Your task to perform on an android device: Set the phone to "Do not disturb". Image 0: 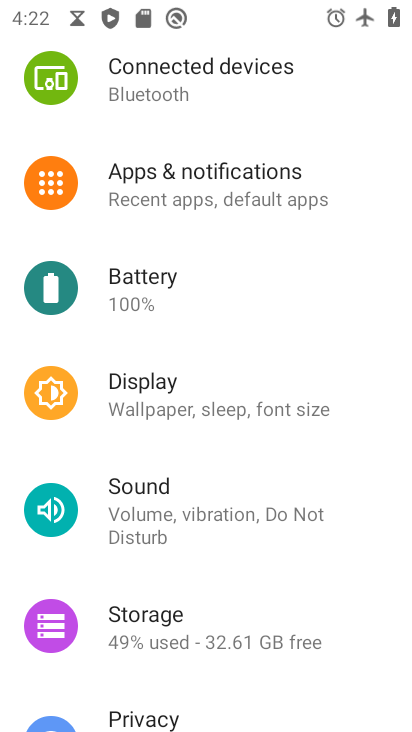
Step 0: press home button
Your task to perform on an android device: Set the phone to "Do not disturb". Image 1: 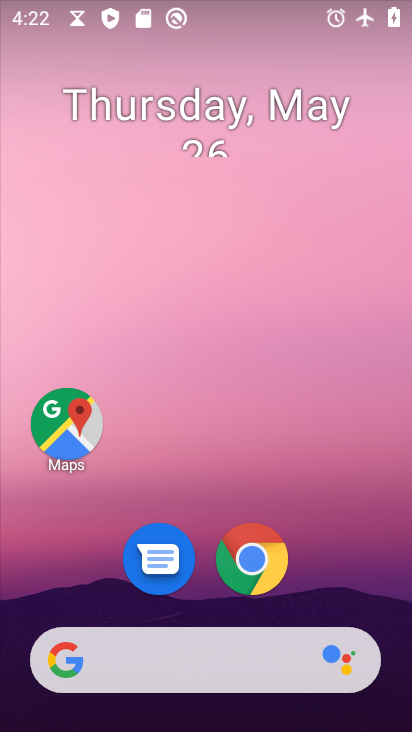
Step 1: drag from (339, 532) to (247, 42)
Your task to perform on an android device: Set the phone to "Do not disturb". Image 2: 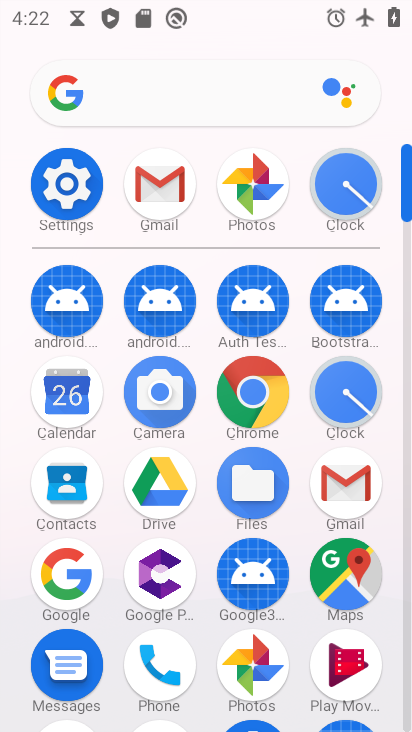
Step 2: click (61, 187)
Your task to perform on an android device: Set the phone to "Do not disturb". Image 3: 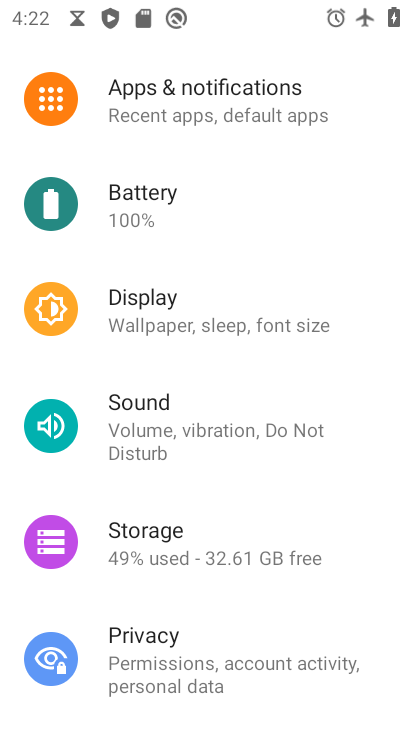
Step 3: click (196, 420)
Your task to perform on an android device: Set the phone to "Do not disturb". Image 4: 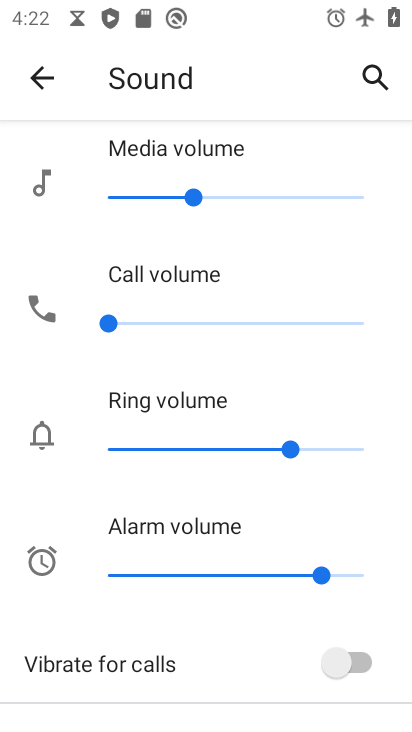
Step 4: drag from (204, 651) to (217, 145)
Your task to perform on an android device: Set the phone to "Do not disturb". Image 5: 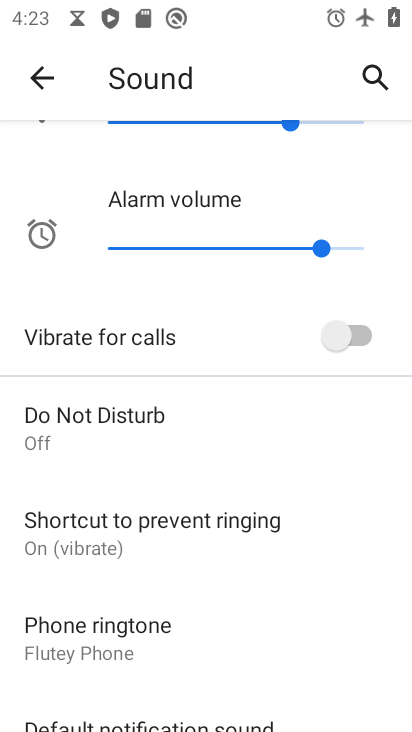
Step 5: click (114, 435)
Your task to perform on an android device: Set the phone to "Do not disturb". Image 6: 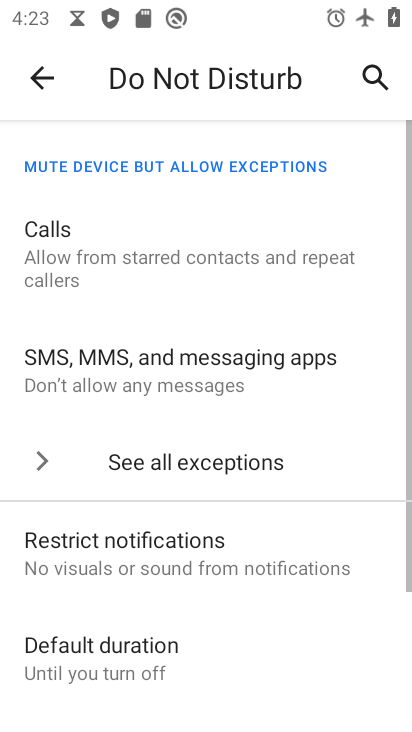
Step 6: drag from (246, 610) to (242, 112)
Your task to perform on an android device: Set the phone to "Do not disturb". Image 7: 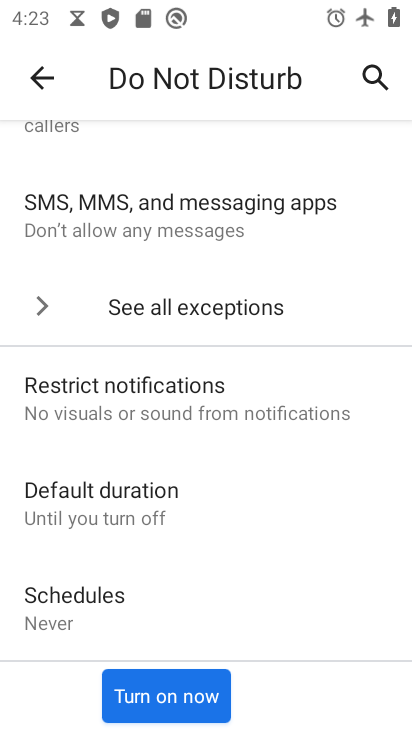
Step 7: click (155, 695)
Your task to perform on an android device: Set the phone to "Do not disturb". Image 8: 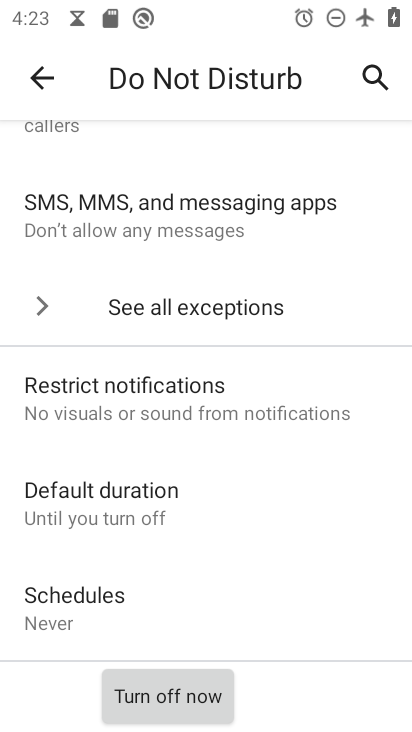
Step 8: task complete